Your task to perform on an android device: Open privacy settings Image 0: 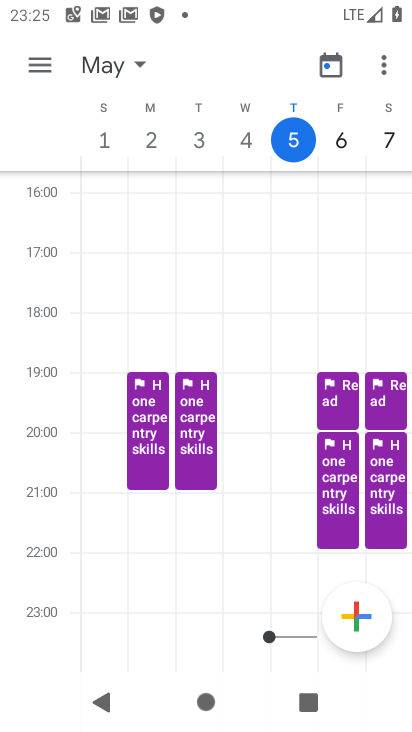
Step 0: press home button
Your task to perform on an android device: Open privacy settings Image 1: 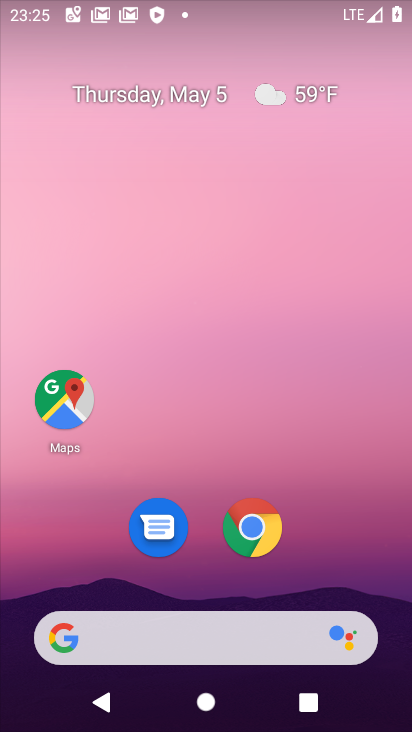
Step 1: drag from (205, 584) to (170, 5)
Your task to perform on an android device: Open privacy settings Image 2: 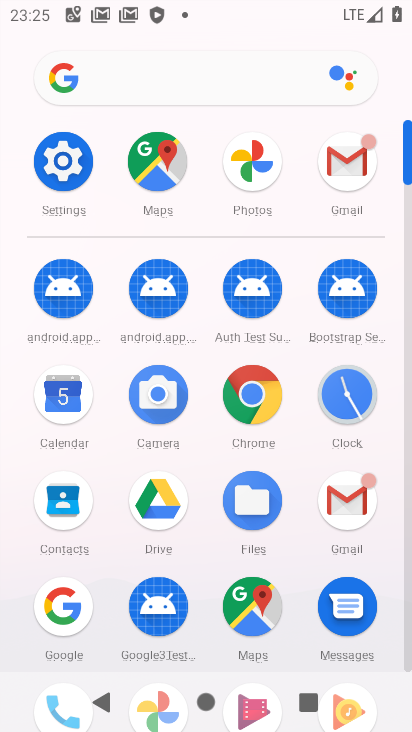
Step 2: click (56, 164)
Your task to perform on an android device: Open privacy settings Image 3: 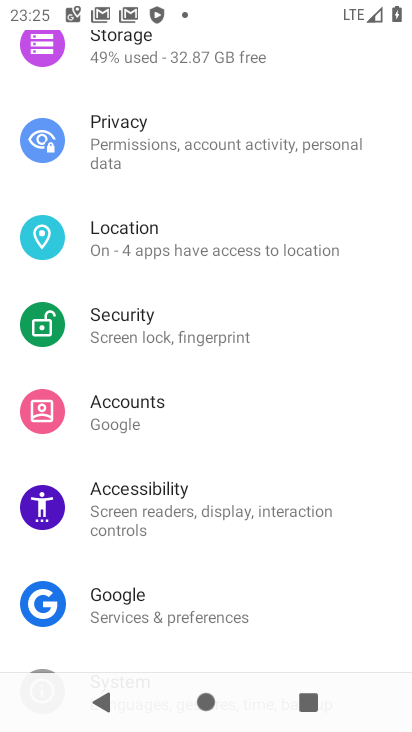
Step 3: click (186, 149)
Your task to perform on an android device: Open privacy settings Image 4: 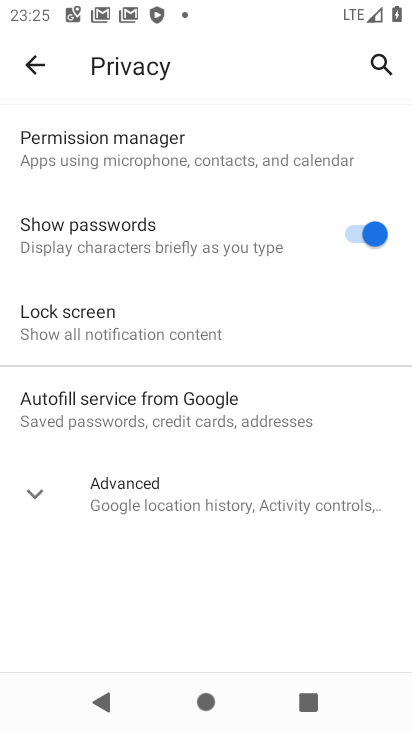
Step 4: task complete